Your task to perform on an android device: set the stopwatch Image 0: 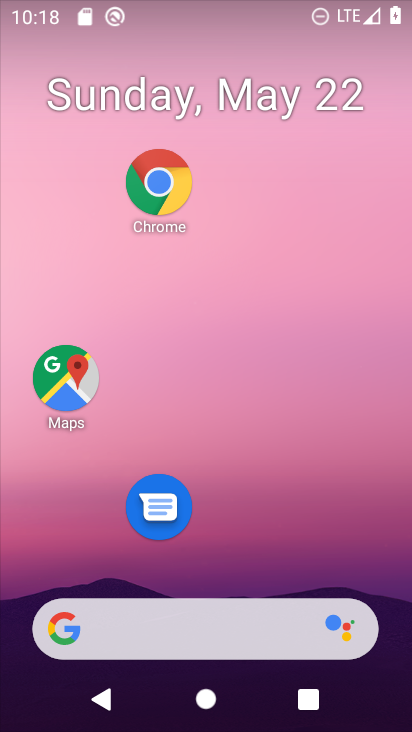
Step 0: drag from (160, 707) to (179, 233)
Your task to perform on an android device: set the stopwatch Image 1: 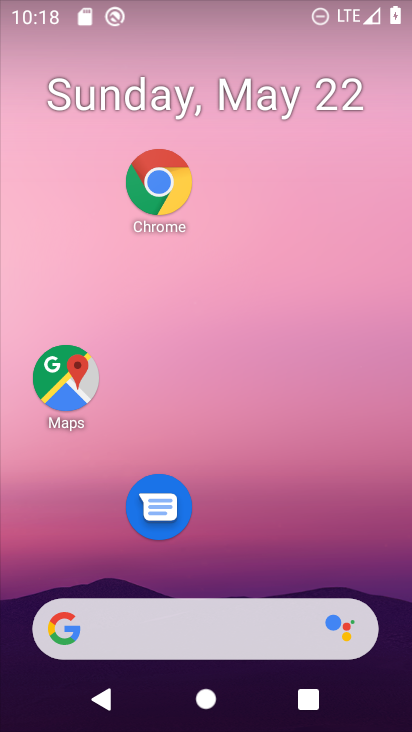
Step 1: drag from (170, 674) to (128, 0)
Your task to perform on an android device: set the stopwatch Image 2: 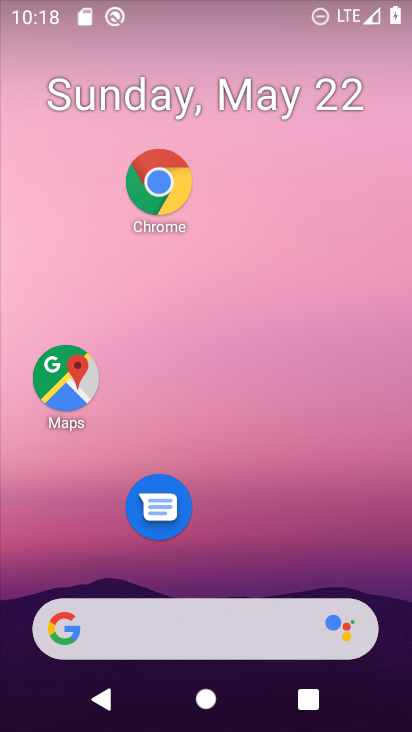
Step 2: drag from (237, 687) to (271, 56)
Your task to perform on an android device: set the stopwatch Image 3: 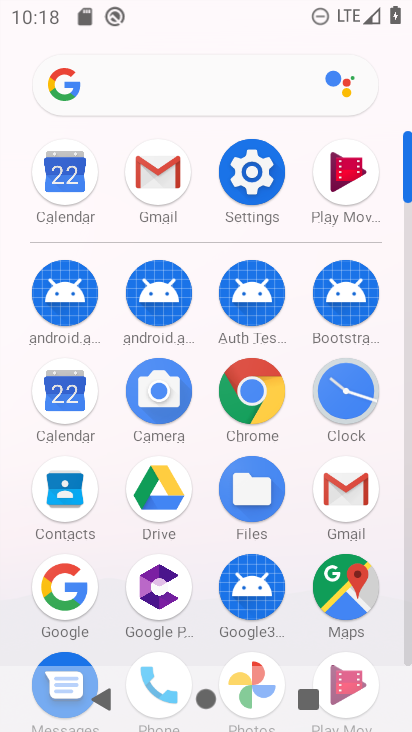
Step 3: click (350, 409)
Your task to perform on an android device: set the stopwatch Image 4: 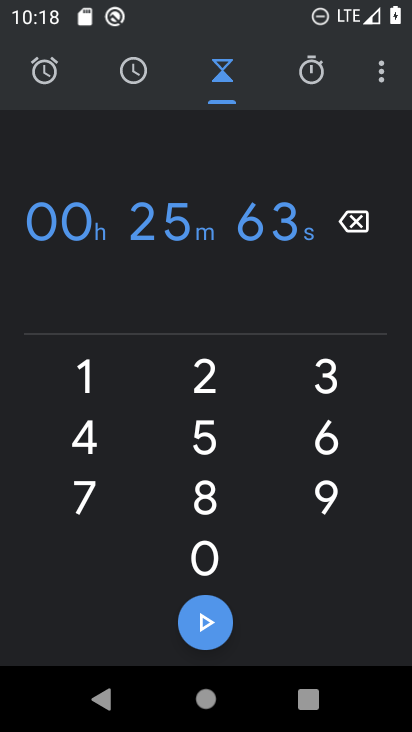
Step 4: click (311, 71)
Your task to perform on an android device: set the stopwatch Image 5: 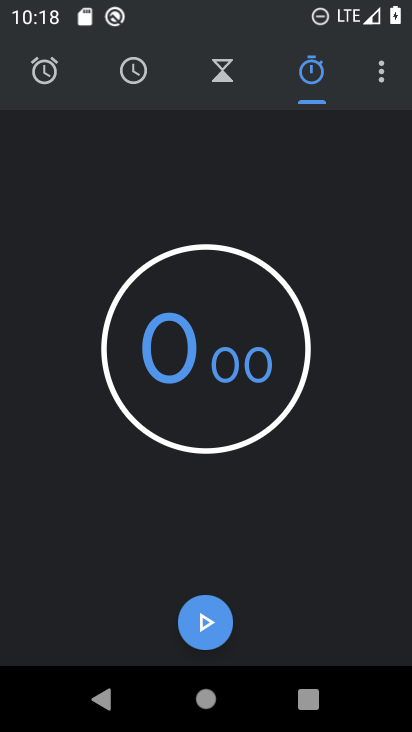
Step 5: task complete